Your task to perform on an android device: create a new album in the google photos Image 0: 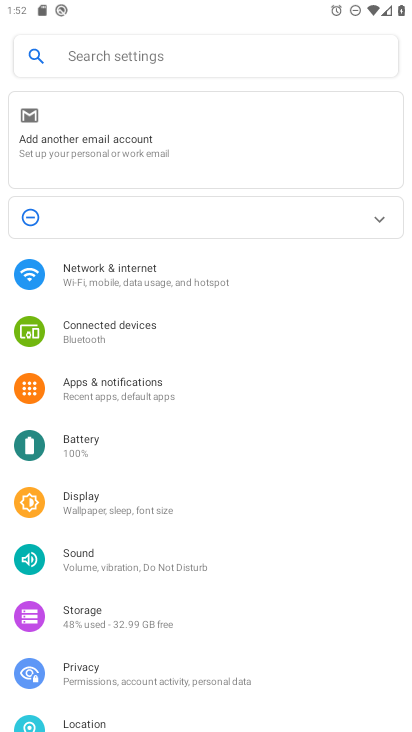
Step 0: press home button
Your task to perform on an android device: create a new album in the google photos Image 1: 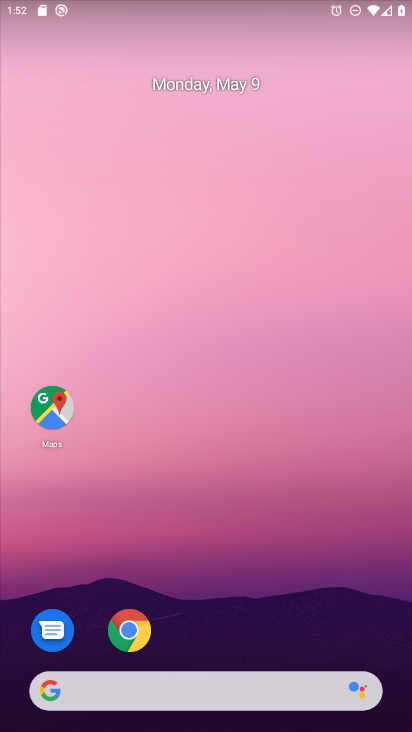
Step 1: drag from (256, 689) to (409, 128)
Your task to perform on an android device: create a new album in the google photos Image 2: 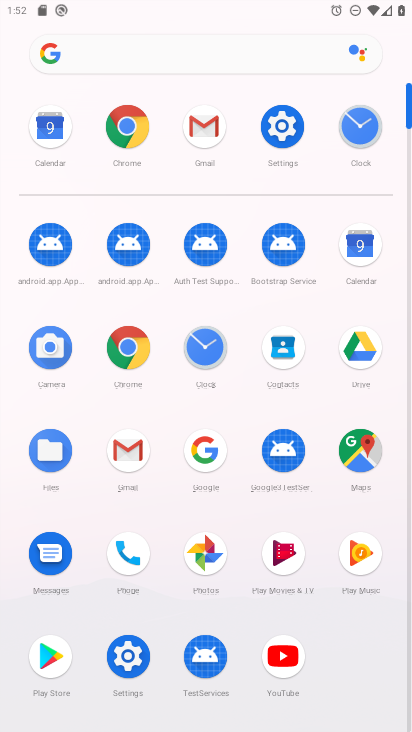
Step 2: click (211, 546)
Your task to perform on an android device: create a new album in the google photos Image 3: 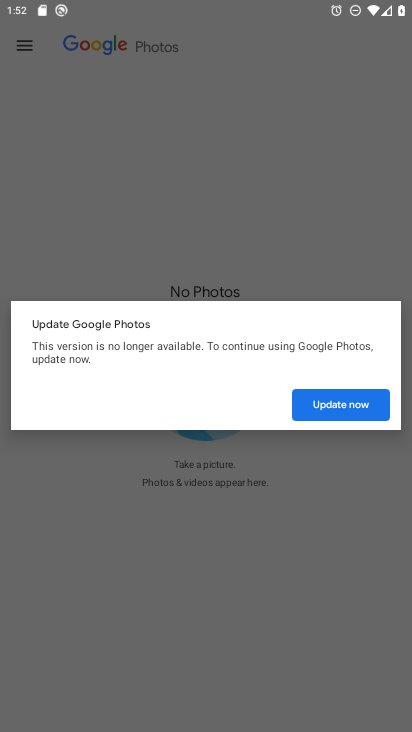
Step 3: click (317, 390)
Your task to perform on an android device: create a new album in the google photos Image 4: 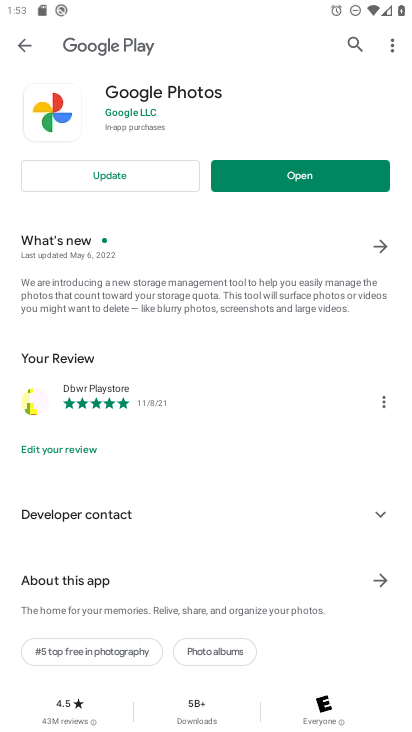
Step 4: click (255, 183)
Your task to perform on an android device: create a new album in the google photos Image 5: 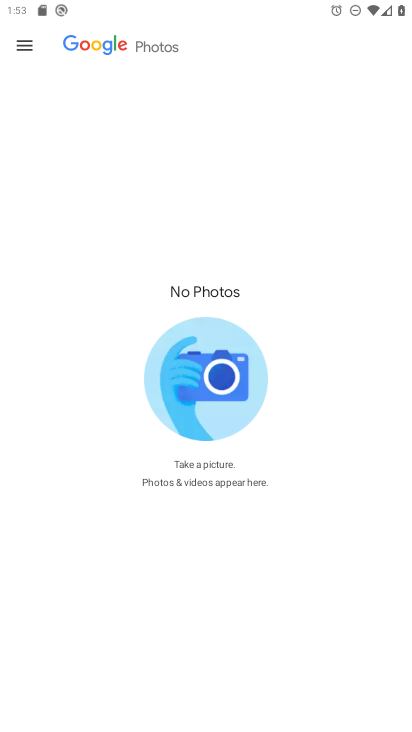
Step 5: task complete